Your task to perform on an android device: open device folders in google photos Image 0: 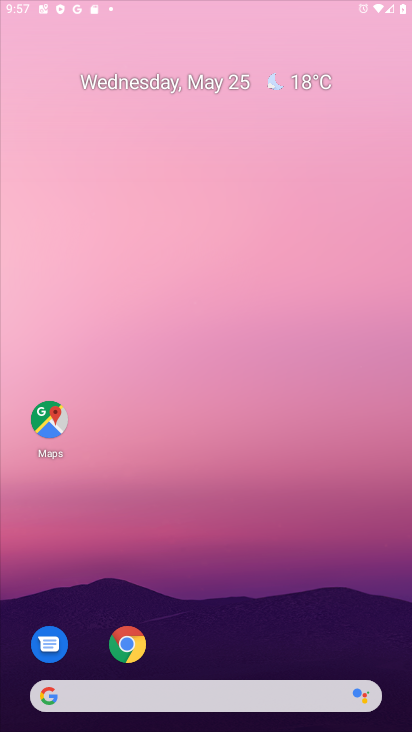
Step 0: press home button
Your task to perform on an android device: open device folders in google photos Image 1: 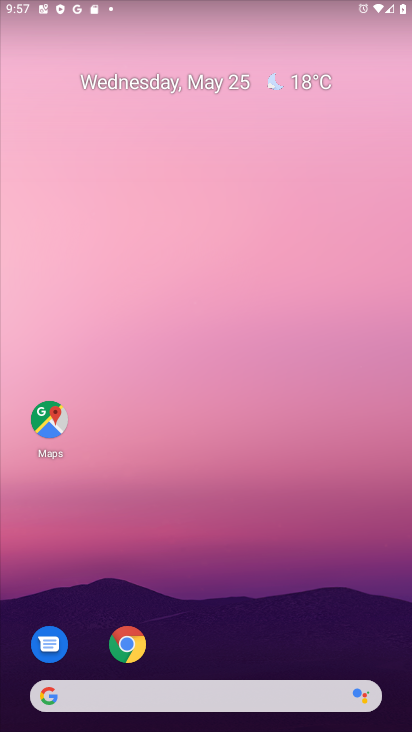
Step 1: drag from (210, 651) to (201, 123)
Your task to perform on an android device: open device folders in google photos Image 2: 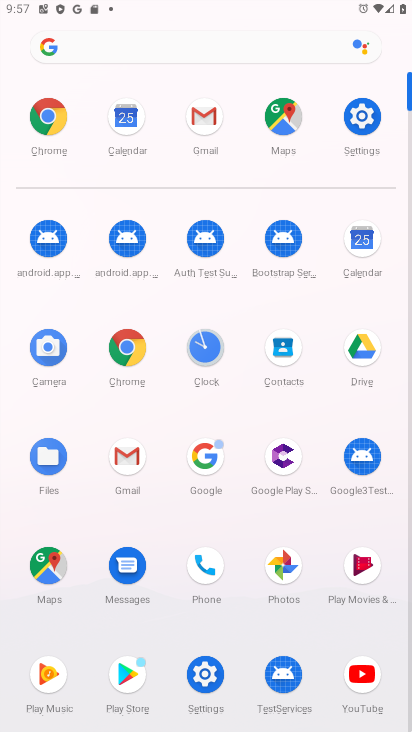
Step 2: click (280, 558)
Your task to perform on an android device: open device folders in google photos Image 3: 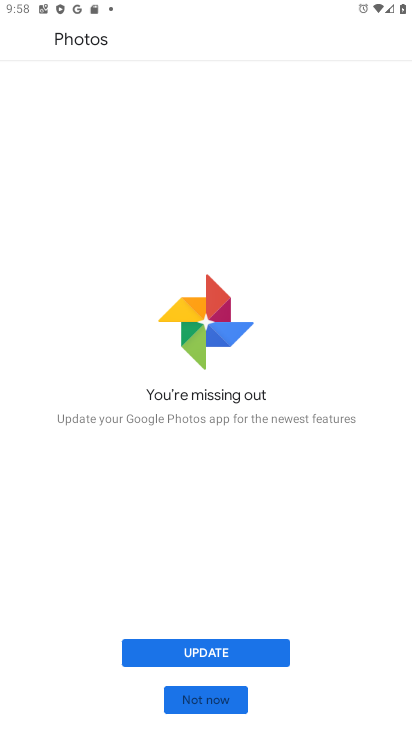
Step 3: click (208, 650)
Your task to perform on an android device: open device folders in google photos Image 4: 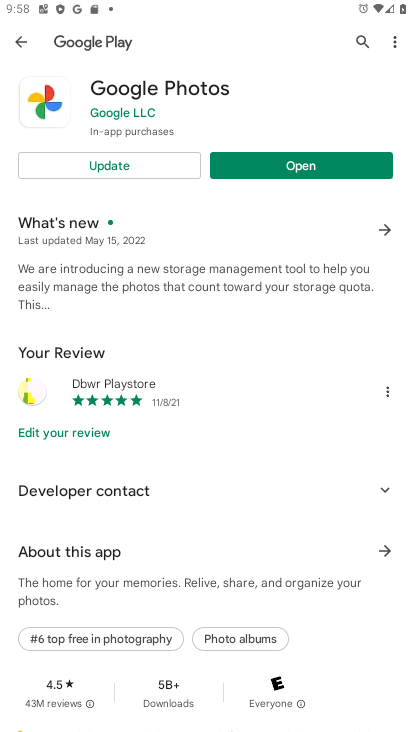
Step 4: click (108, 159)
Your task to perform on an android device: open device folders in google photos Image 5: 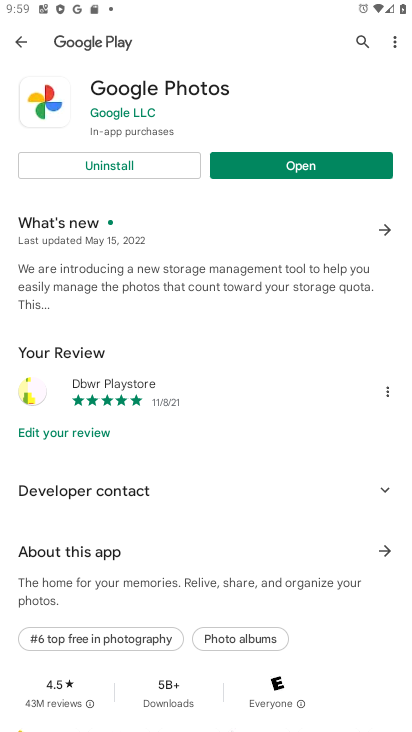
Step 5: click (269, 163)
Your task to perform on an android device: open device folders in google photos Image 6: 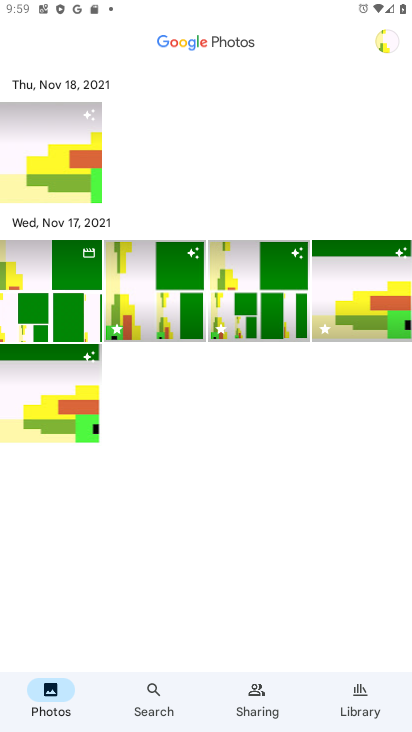
Step 6: click (152, 687)
Your task to perform on an android device: open device folders in google photos Image 7: 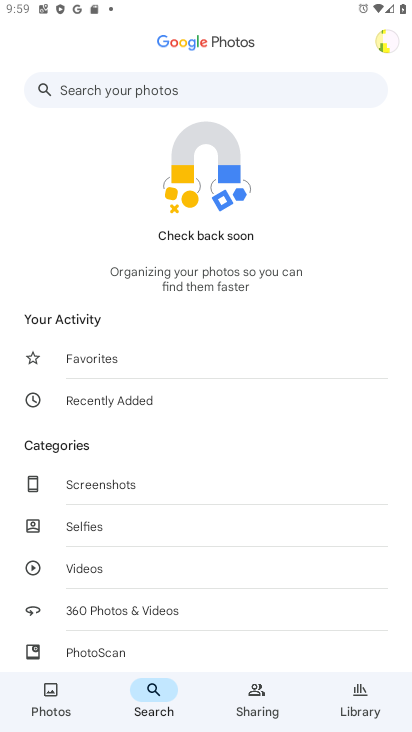
Step 7: click (117, 88)
Your task to perform on an android device: open device folders in google photos Image 8: 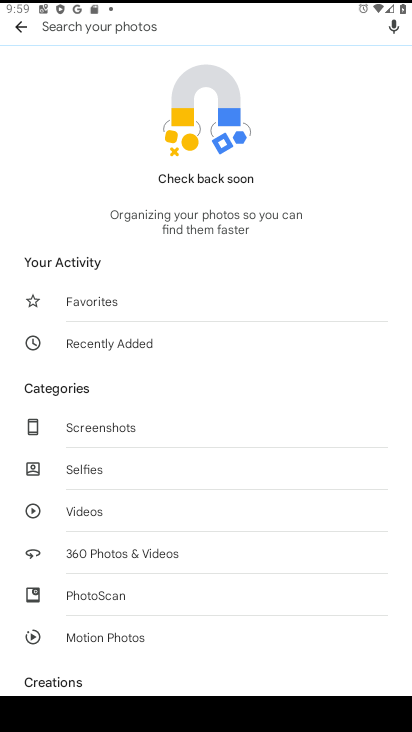
Step 8: type "device"
Your task to perform on an android device: open device folders in google photos Image 9: 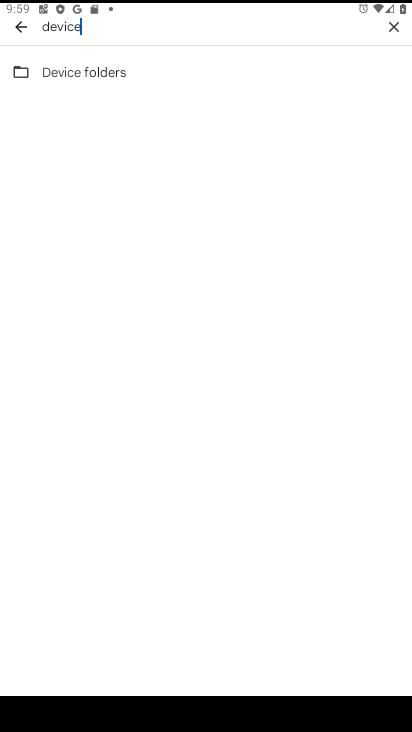
Step 9: click (82, 65)
Your task to perform on an android device: open device folders in google photos Image 10: 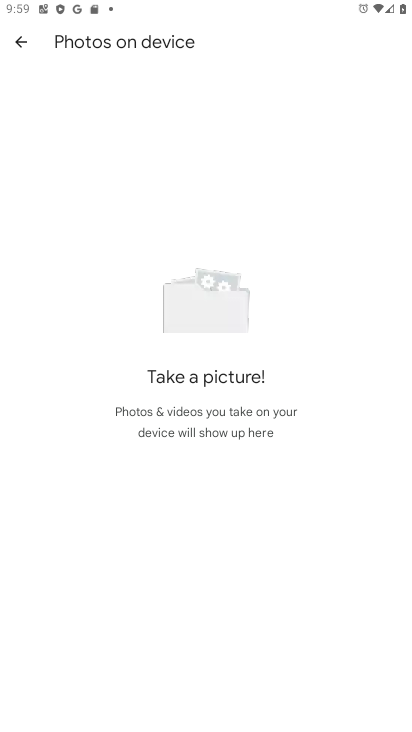
Step 10: task complete